Your task to perform on an android device: toggle wifi Image 0: 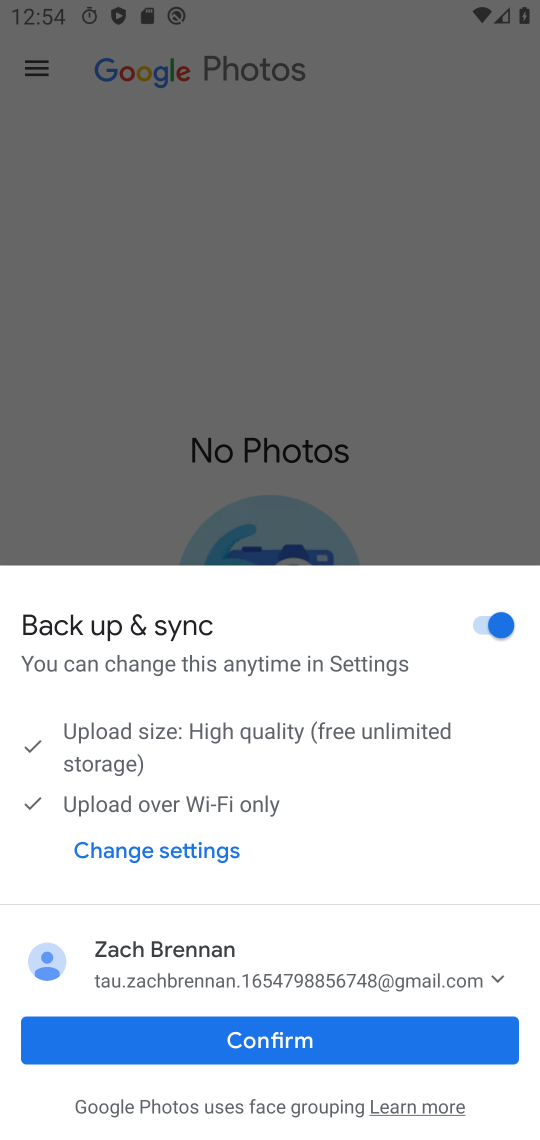
Step 0: press home button
Your task to perform on an android device: toggle wifi Image 1: 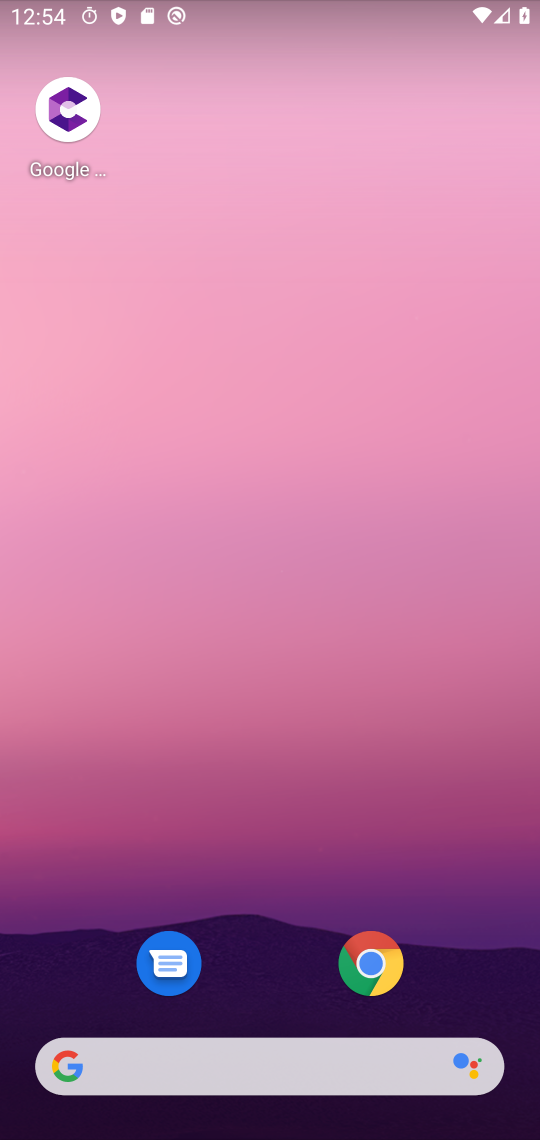
Step 1: drag from (347, 720) to (424, 17)
Your task to perform on an android device: toggle wifi Image 2: 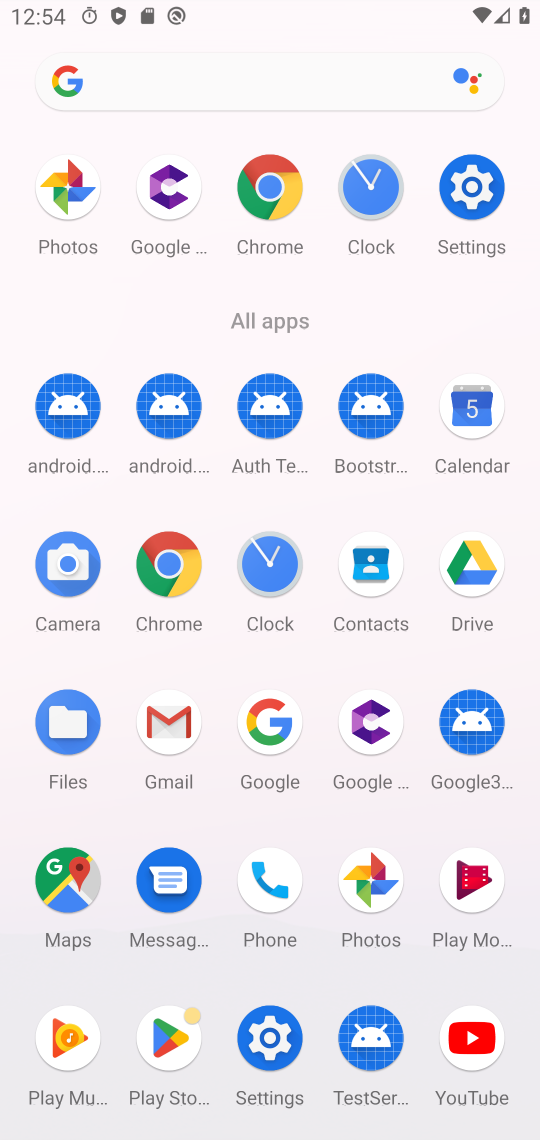
Step 2: click (458, 186)
Your task to perform on an android device: toggle wifi Image 3: 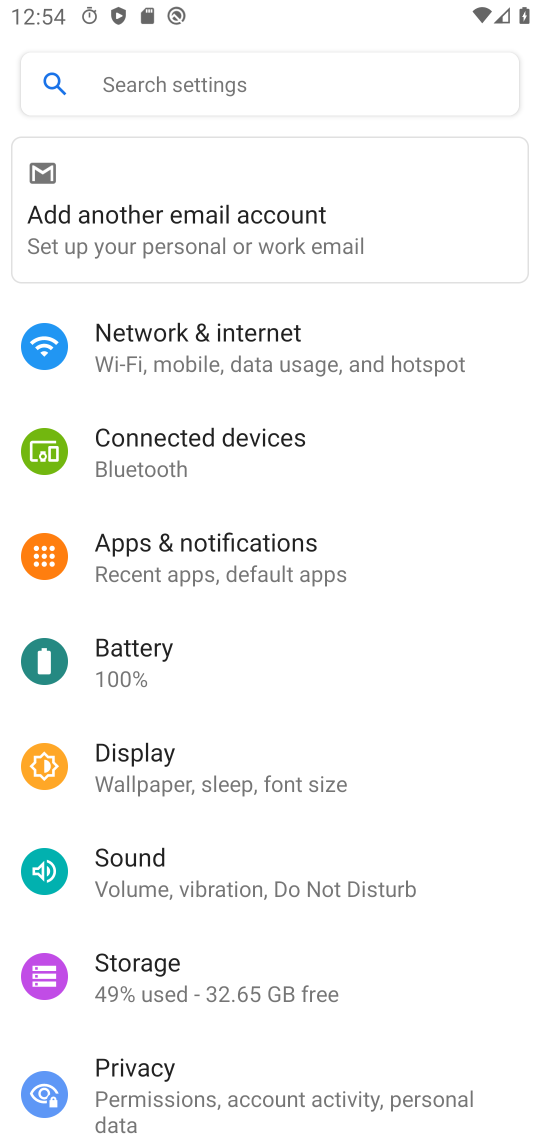
Step 3: click (168, 360)
Your task to perform on an android device: toggle wifi Image 4: 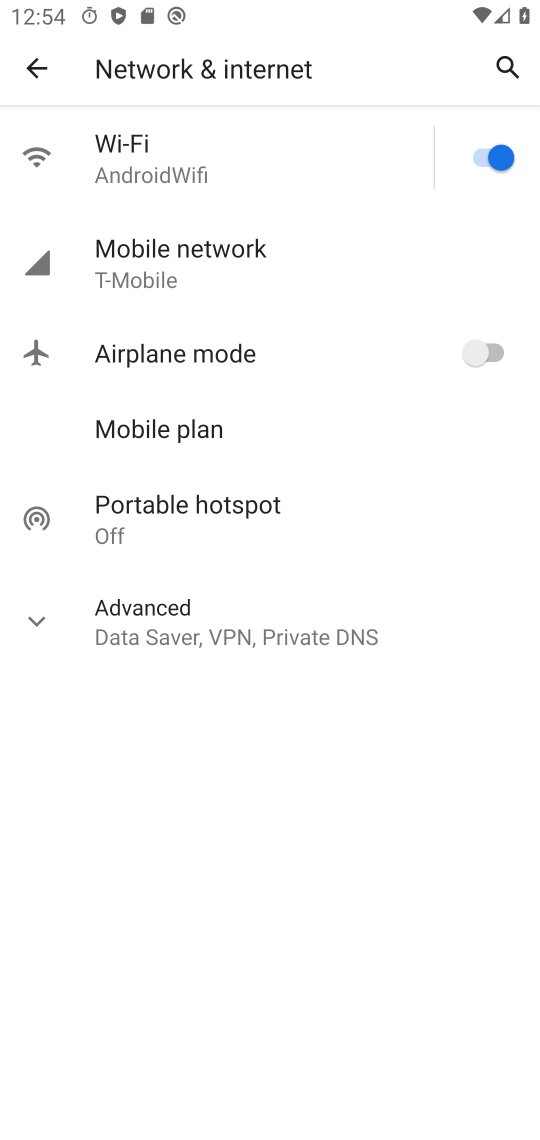
Step 4: click (502, 156)
Your task to perform on an android device: toggle wifi Image 5: 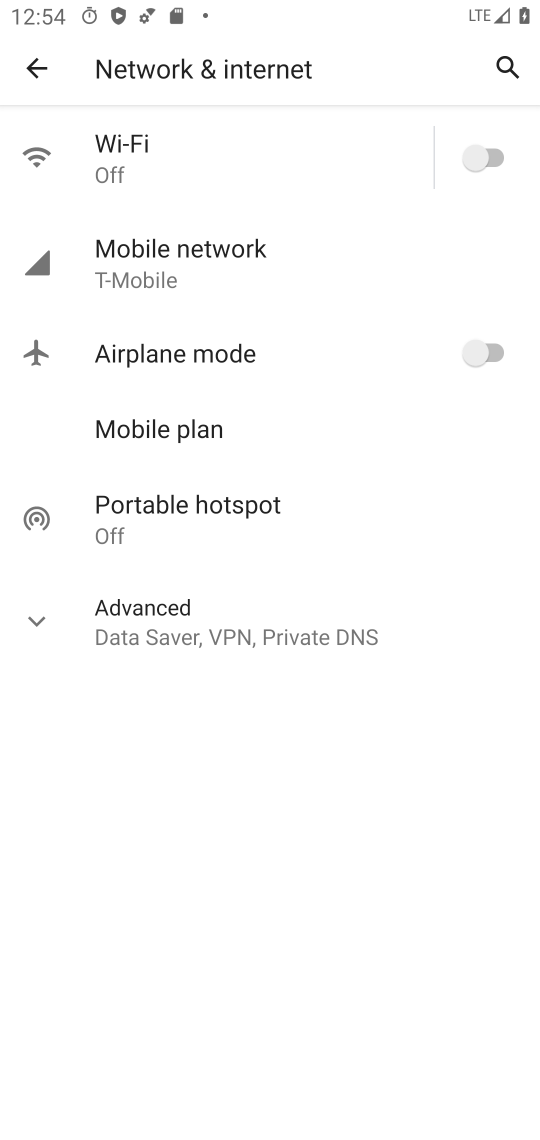
Step 5: task complete